Your task to perform on an android device: Go to accessibility settings Image 0: 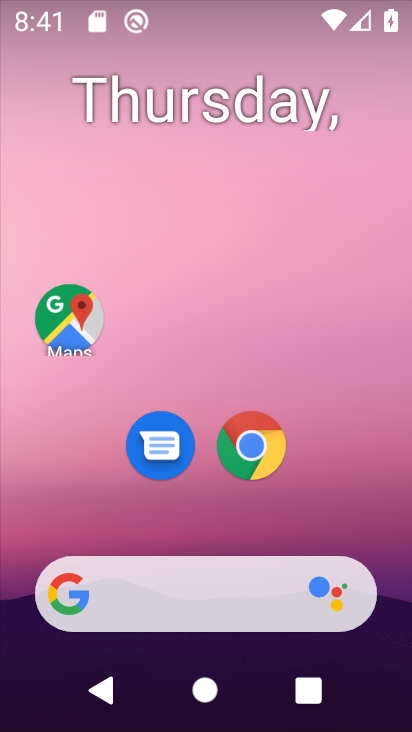
Step 0: drag from (340, 515) to (85, 67)
Your task to perform on an android device: Go to accessibility settings Image 1: 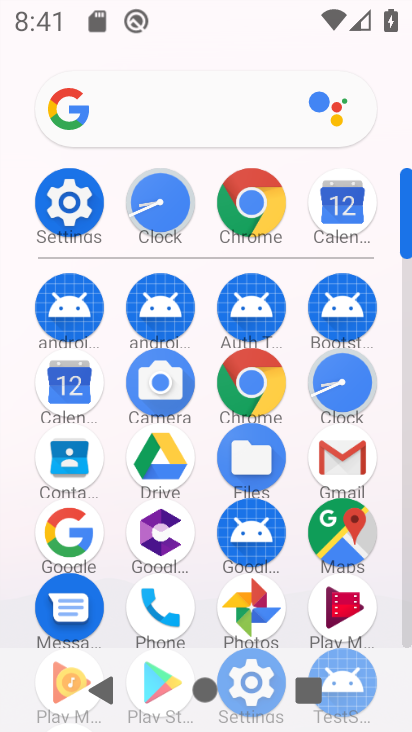
Step 1: click (69, 224)
Your task to perform on an android device: Go to accessibility settings Image 2: 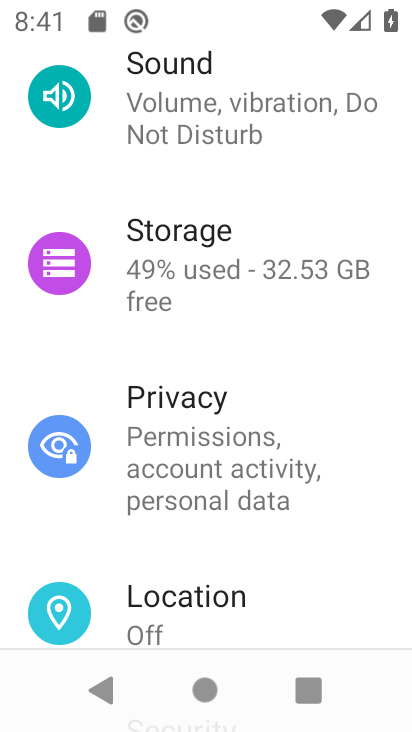
Step 2: drag from (299, 557) to (259, 269)
Your task to perform on an android device: Go to accessibility settings Image 3: 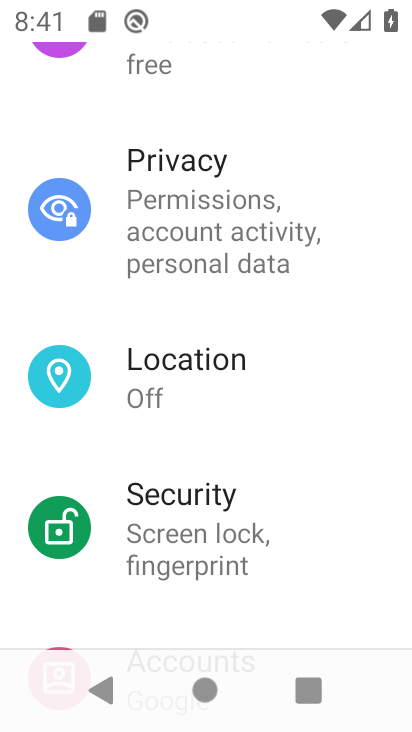
Step 3: drag from (259, 581) to (226, 218)
Your task to perform on an android device: Go to accessibility settings Image 4: 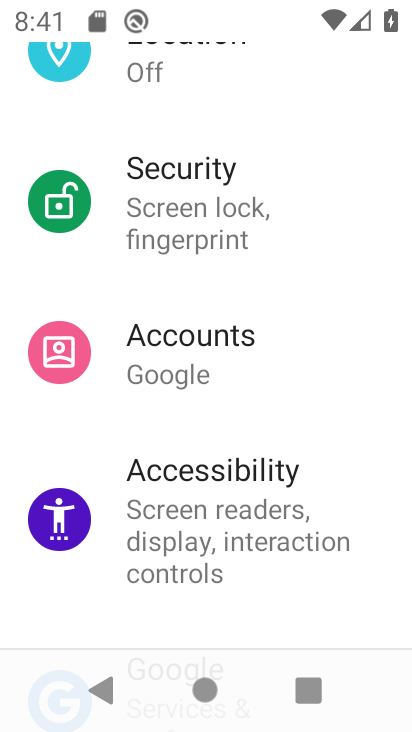
Step 4: click (222, 539)
Your task to perform on an android device: Go to accessibility settings Image 5: 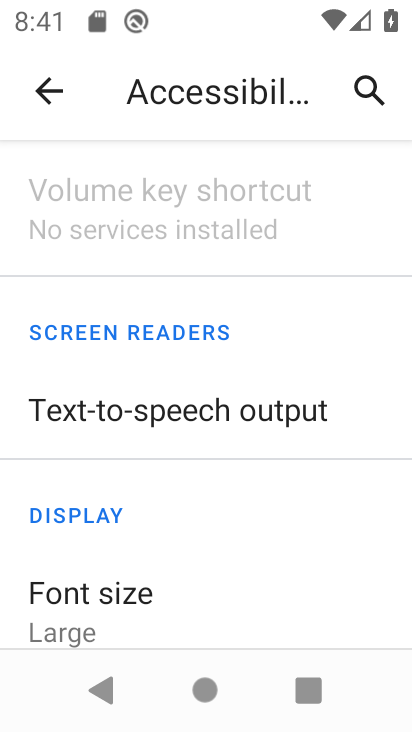
Step 5: task complete